Your task to perform on an android device: Do I have any events tomorrow? Image 0: 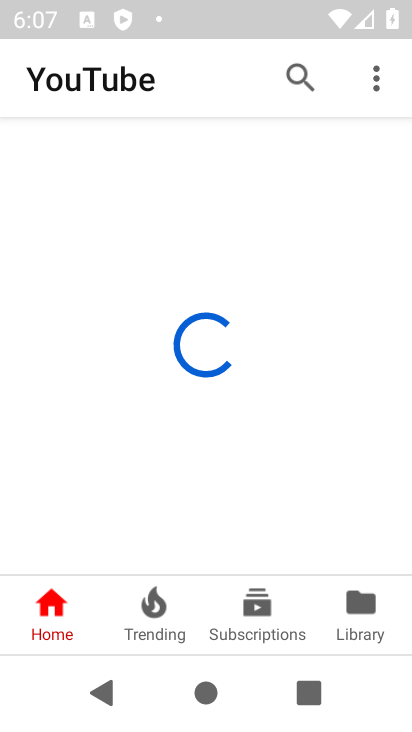
Step 0: press home button
Your task to perform on an android device: Do I have any events tomorrow? Image 1: 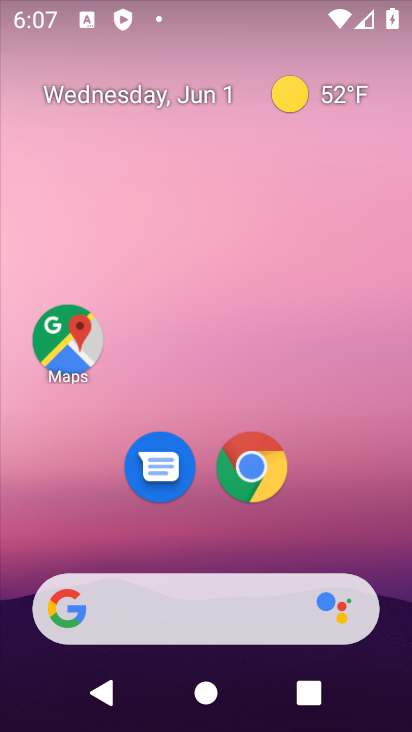
Step 1: click (138, 99)
Your task to perform on an android device: Do I have any events tomorrow? Image 2: 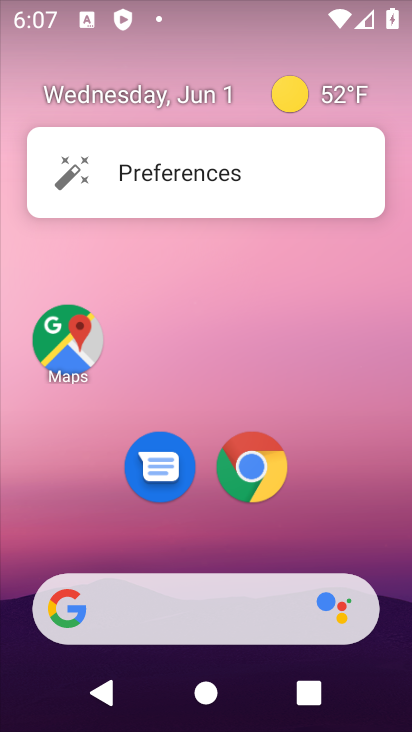
Step 2: click (137, 94)
Your task to perform on an android device: Do I have any events tomorrow? Image 3: 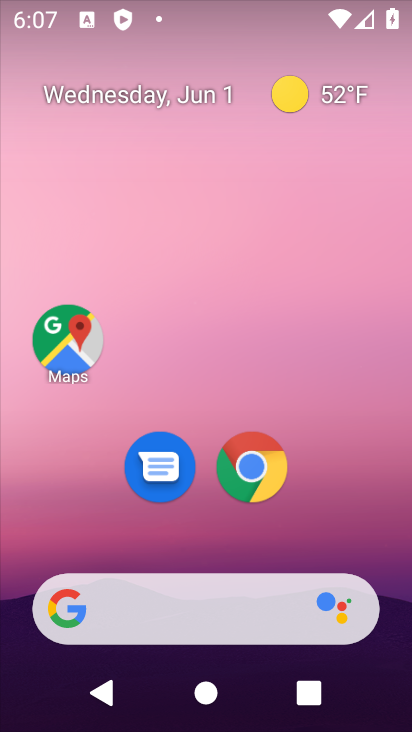
Step 3: click (128, 86)
Your task to perform on an android device: Do I have any events tomorrow? Image 4: 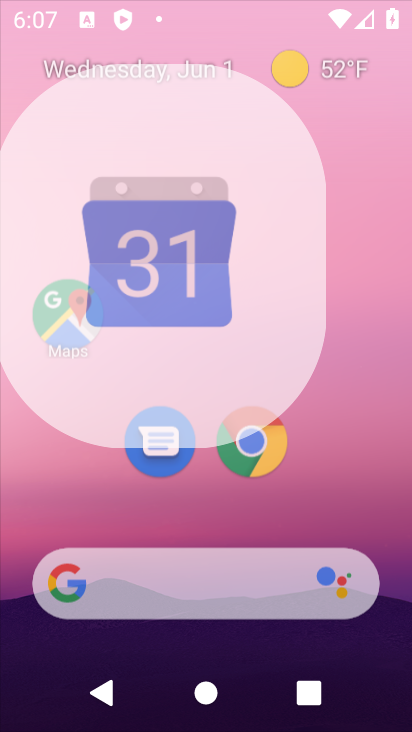
Step 4: drag from (291, 20) to (118, 37)
Your task to perform on an android device: Do I have any events tomorrow? Image 5: 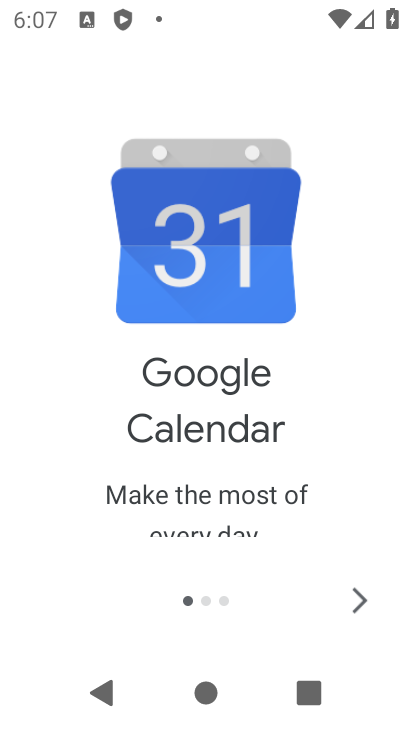
Step 5: click (365, 614)
Your task to perform on an android device: Do I have any events tomorrow? Image 6: 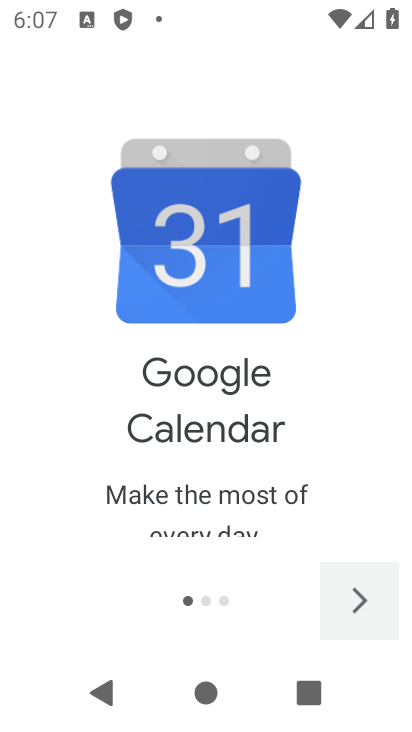
Step 6: click (365, 609)
Your task to perform on an android device: Do I have any events tomorrow? Image 7: 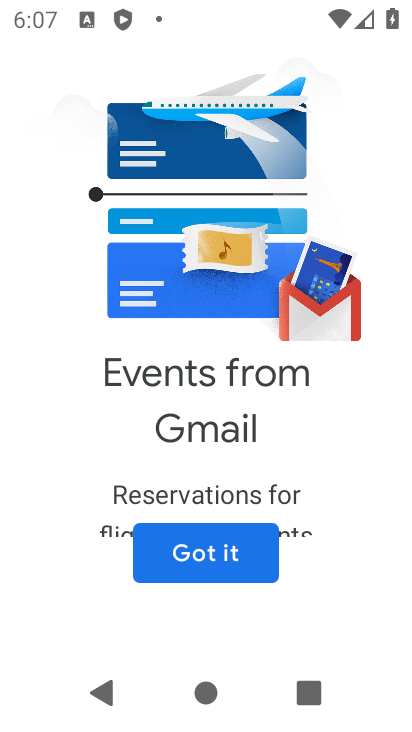
Step 7: click (204, 549)
Your task to perform on an android device: Do I have any events tomorrow? Image 8: 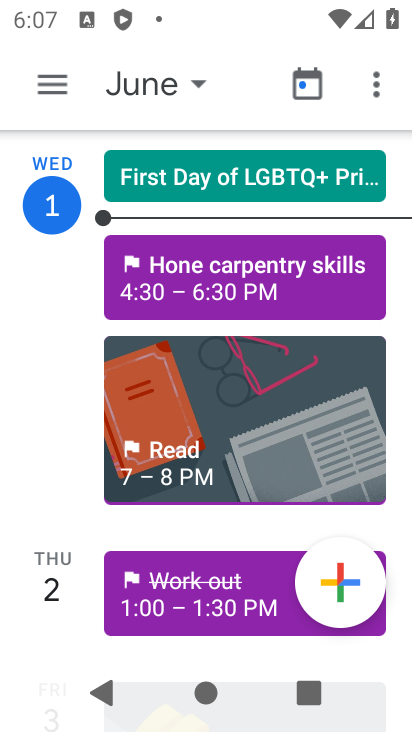
Step 8: task complete